Your task to perform on an android device: Open the calendar and show me this week's events? Image 0: 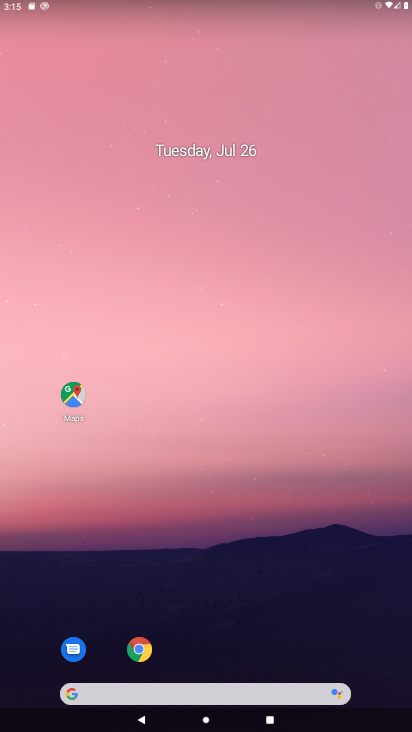
Step 0: drag from (204, 690) to (185, 144)
Your task to perform on an android device: Open the calendar and show me this week's events? Image 1: 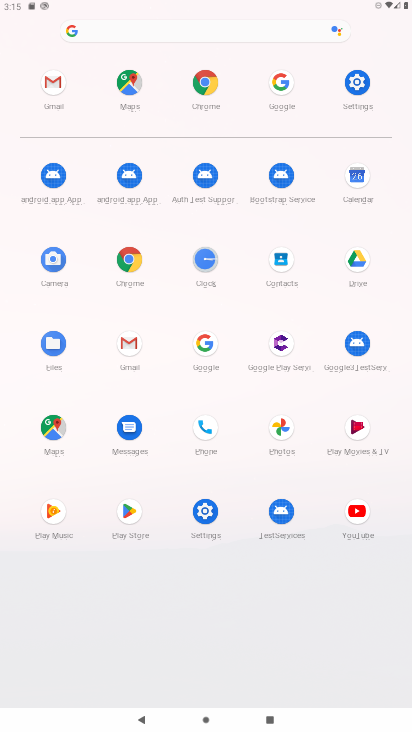
Step 1: click (352, 177)
Your task to perform on an android device: Open the calendar and show me this week's events? Image 2: 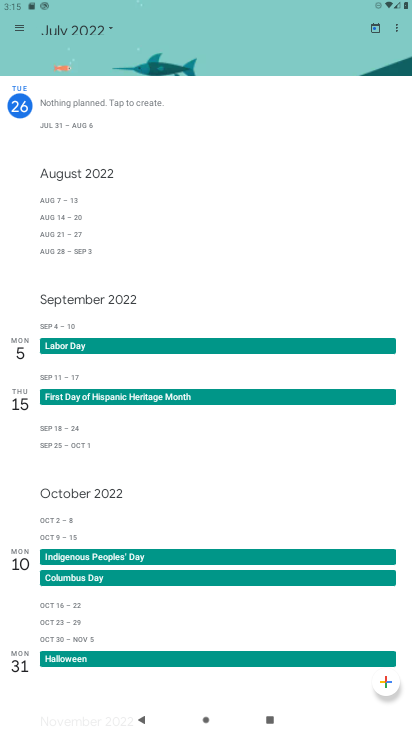
Step 2: click (16, 23)
Your task to perform on an android device: Open the calendar and show me this week's events? Image 3: 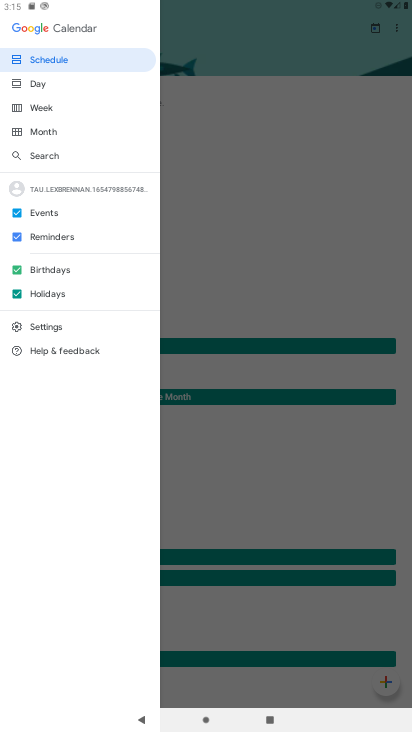
Step 3: click (52, 117)
Your task to perform on an android device: Open the calendar and show me this week's events? Image 4: 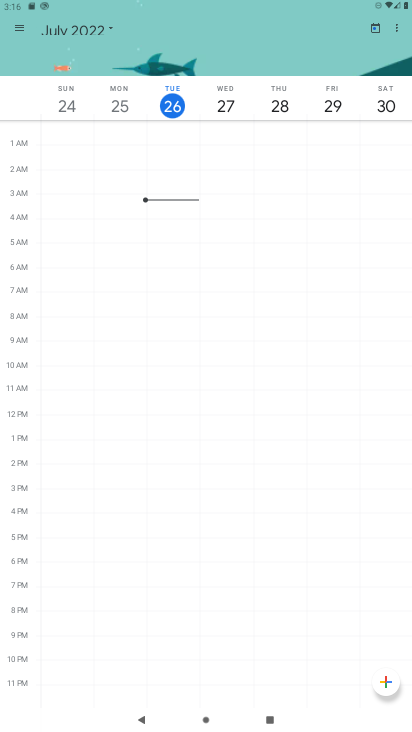
Step 4: task complete